Your task to perform on an android device: Go to Reddit.com Image 0: 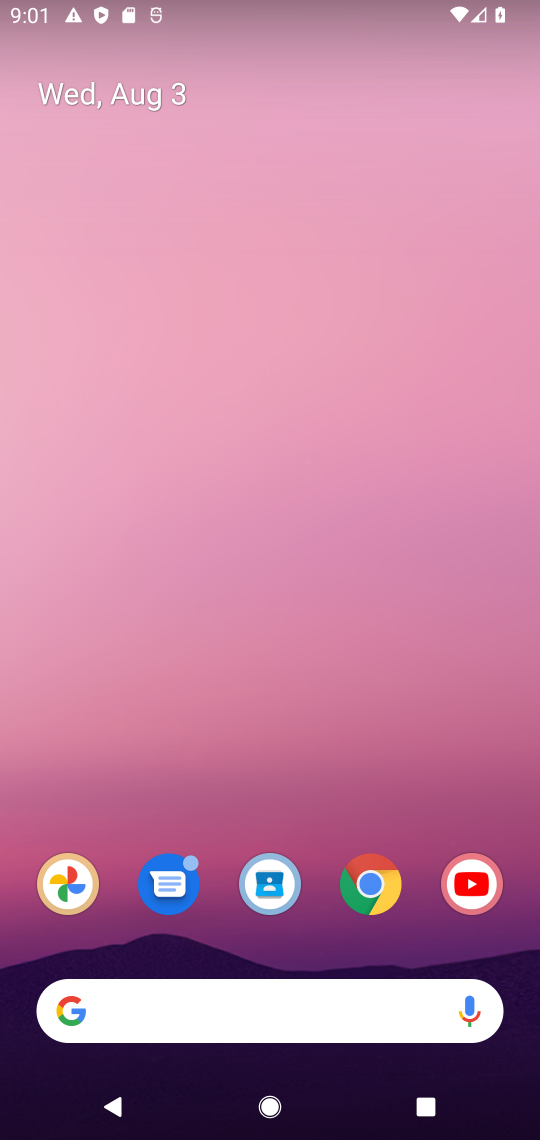
Step 0: press home button
Your task to perform on an android device: Go to Reddit.com Image 1: 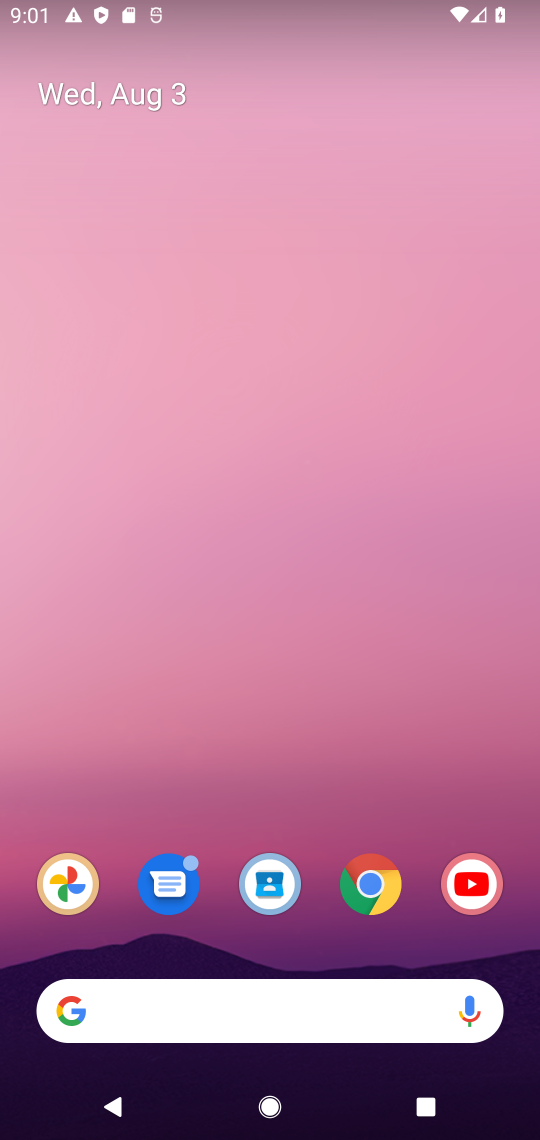
Step 1: drag from (491, 13) to (304, 922)
Your task to perform on an android device: Go to Reddit.com Image 2: 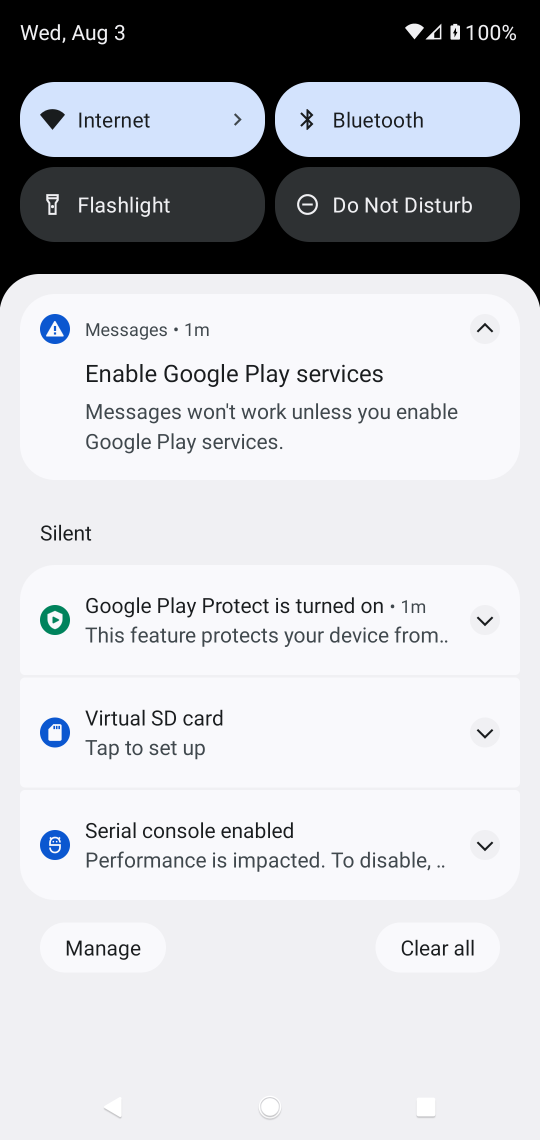
Step 2: drag from (264, 861) to (393, 23)
Your task to perform on an android device: Go to Reddit.com Image 3: 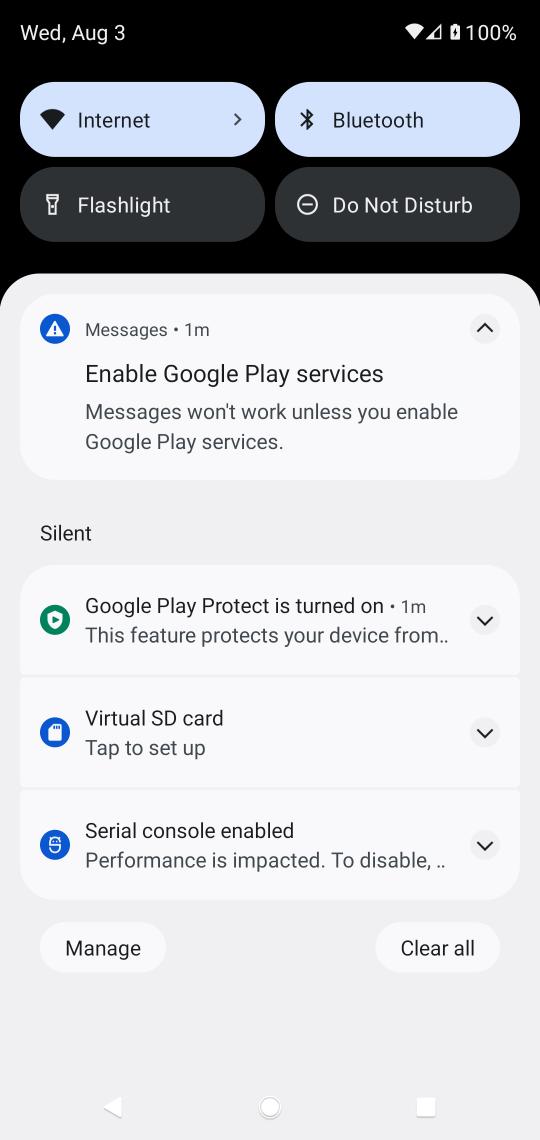
Step 3: press home button
Your task to perform on an android device: Go to Reddit.com Image 4: 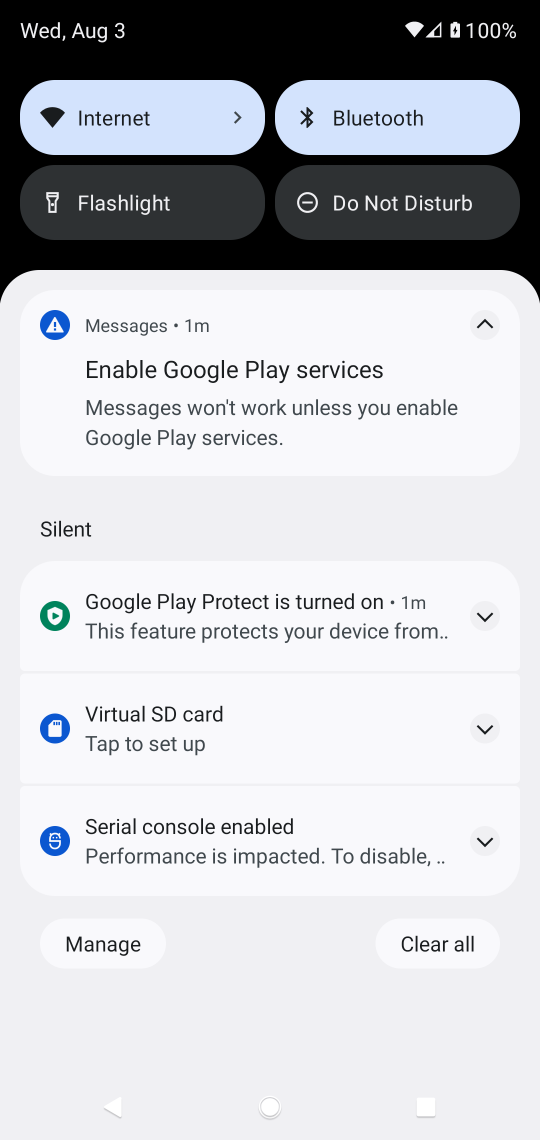
Step 4: press home button
Your task to perform on an android device: Go to Reddit.com Image 5: 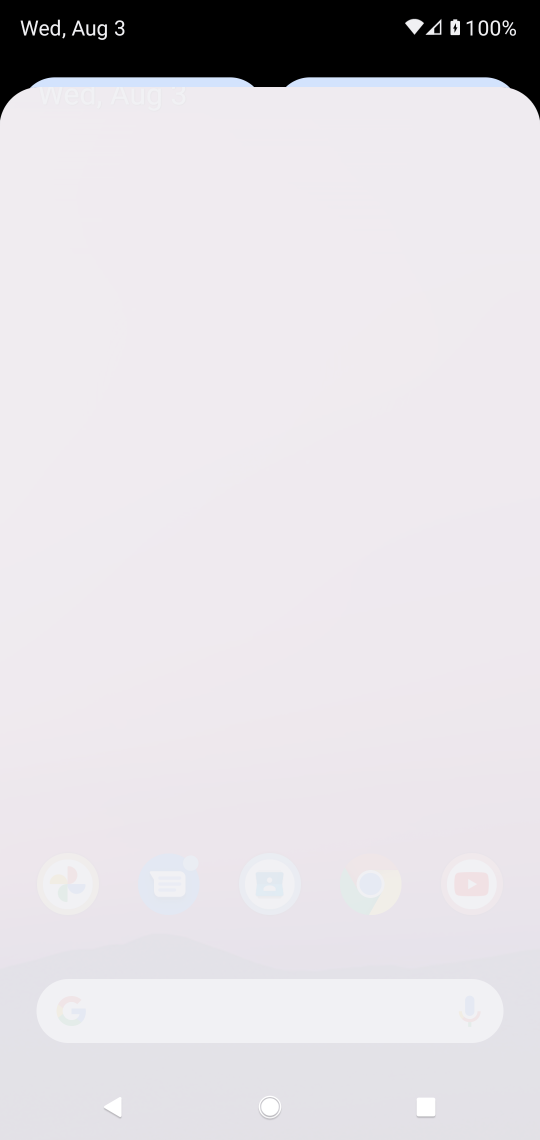
Step 5: press home button
Your task to perform on an android device: Go to Reddit.com Image 6: 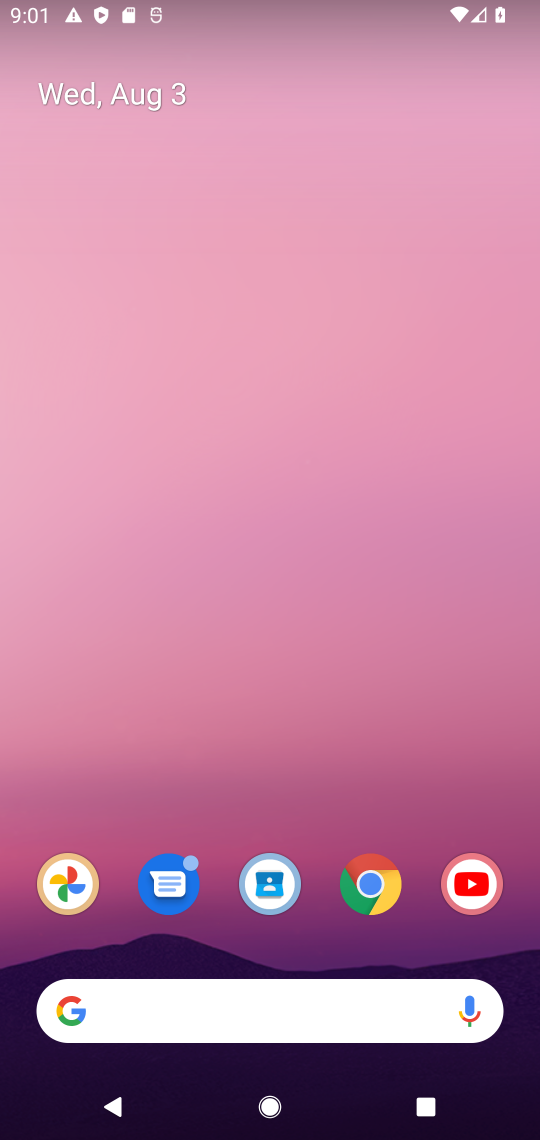
Step 6: drag from (240, 979) to (199, 162)
Your task to perform on an android device: Go to Reddit.com Image 7: 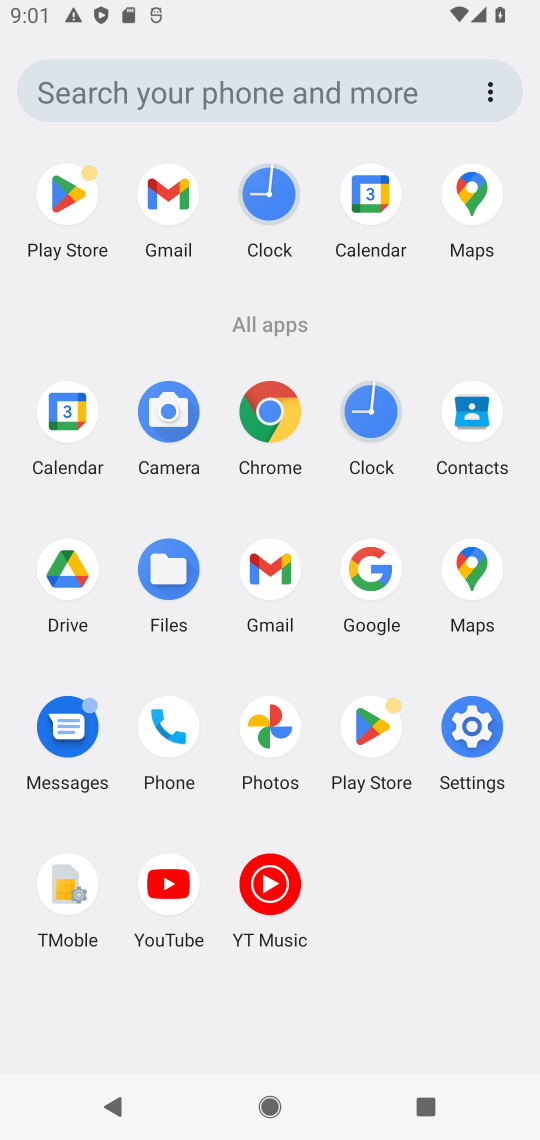
Step 7: click (270, 442)
Your task to perform on an android device: Go to Reddit.com Image 8: 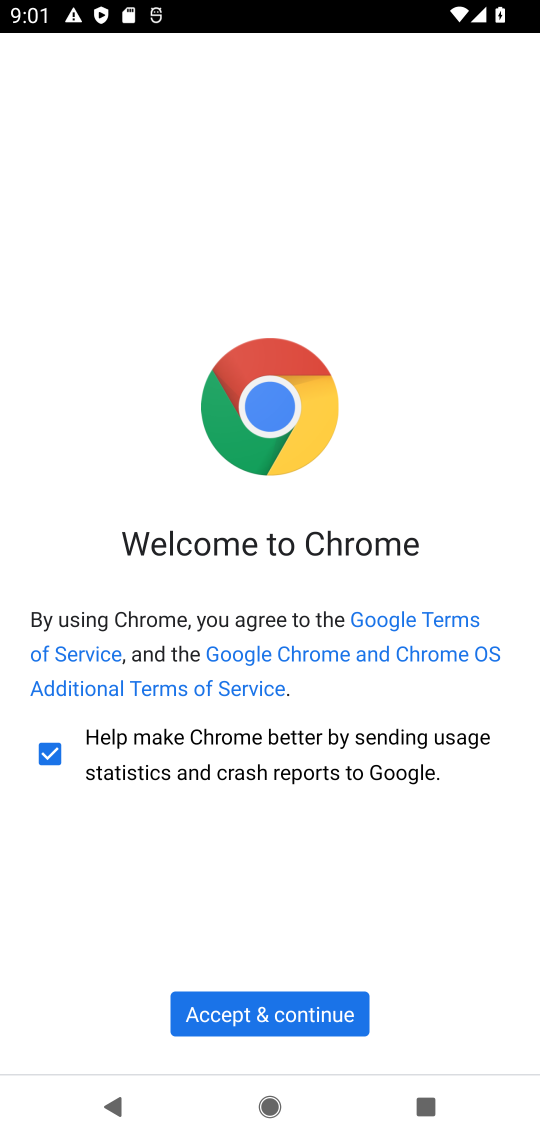
Step 8: click (296, 1002)
Your task to perform on an android device: Go to Reddit.com Image 9: 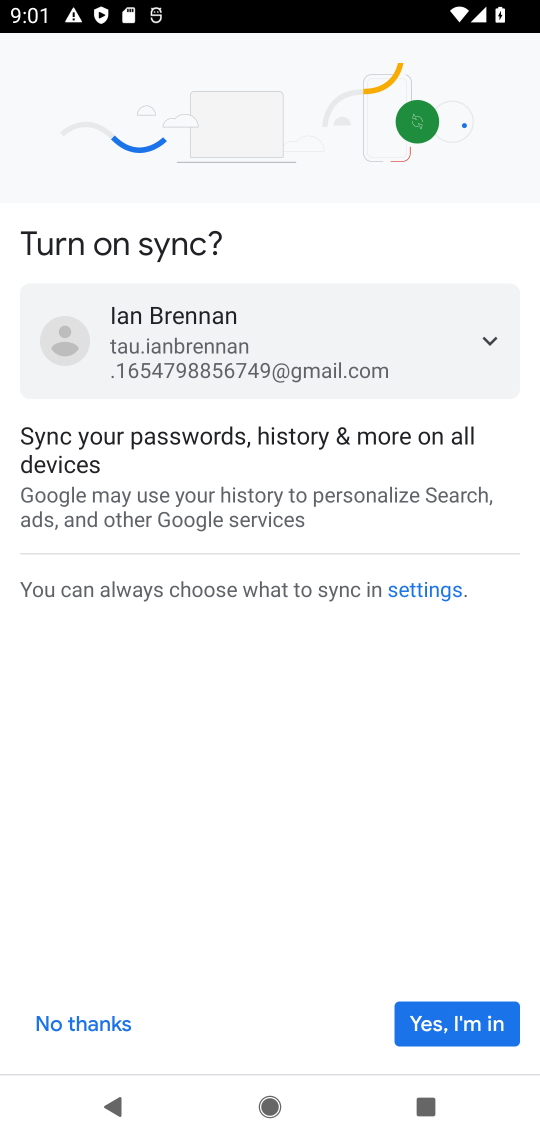
Step 9: click (490, 1031)
Your task to perform on an android device: Go to Reddit.com Image 10: 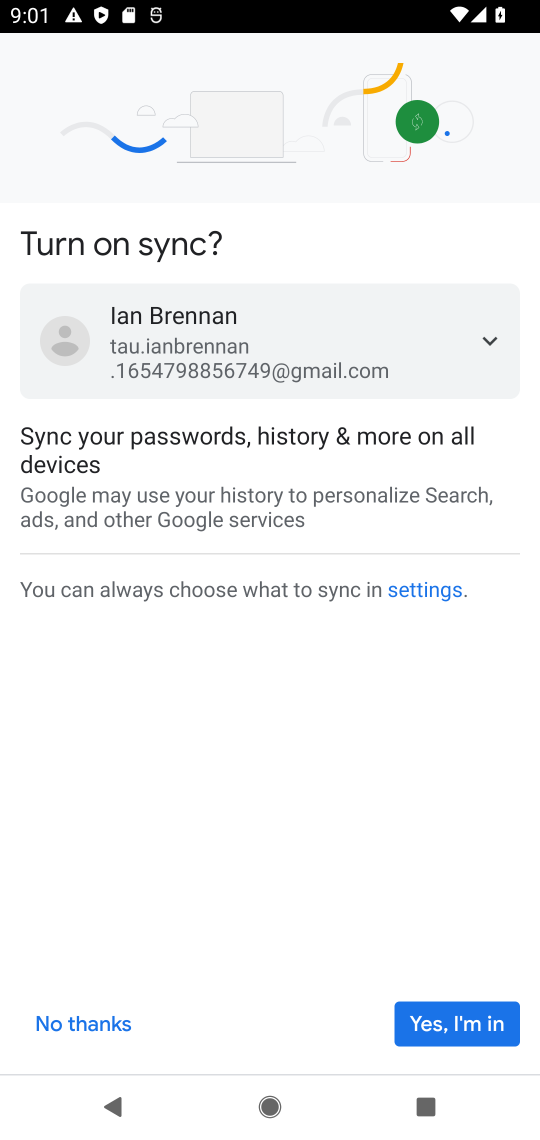
Step 10: click (490, 1031)
Your task to perform on an android device: Go to Reddit.com Image 11: 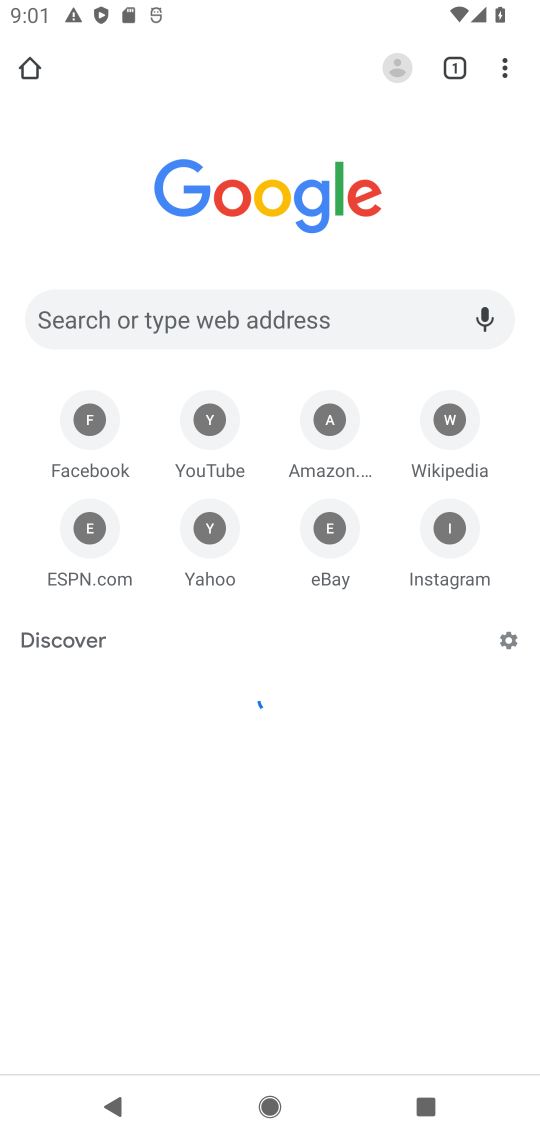
Step 11: click (227, 329)
Your task to perform on an android device: Go to Reddit.com Image 12: 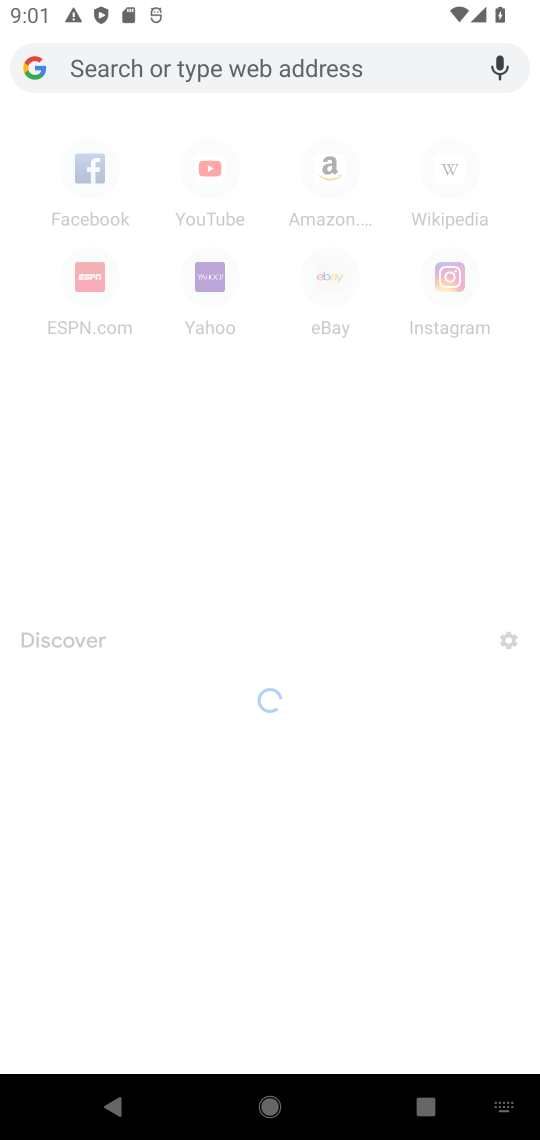
Step 12: type " Reddit.com"
Your task to perform on an android device: Go to Reddit.com Image 13: 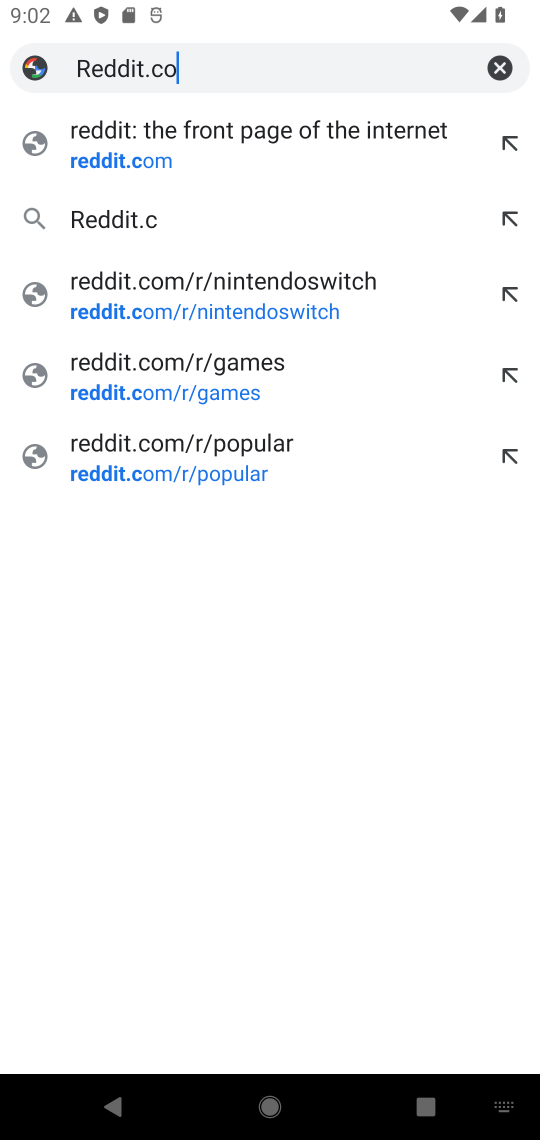
Step 13: type ""
Your task to perform on an android device: Go to Reddit.com Image 14: 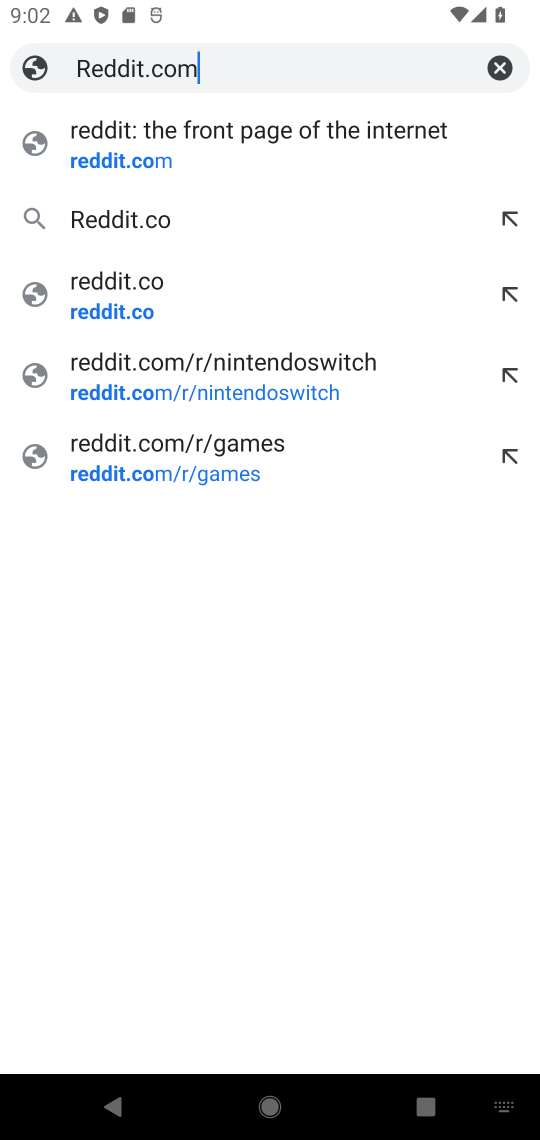
Step 14: click (125, 72)
Your task to perform on an android device: Go to Reddit.com Image 15: 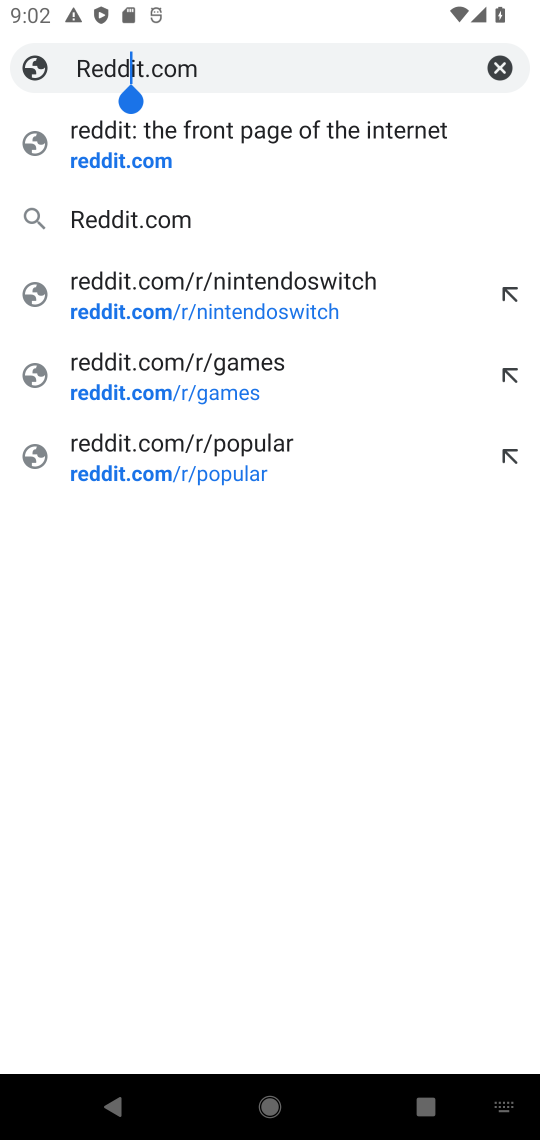
Step 15: click (132, 140)
Your task to perform on an android device: Go to Reddit.com Image 16: 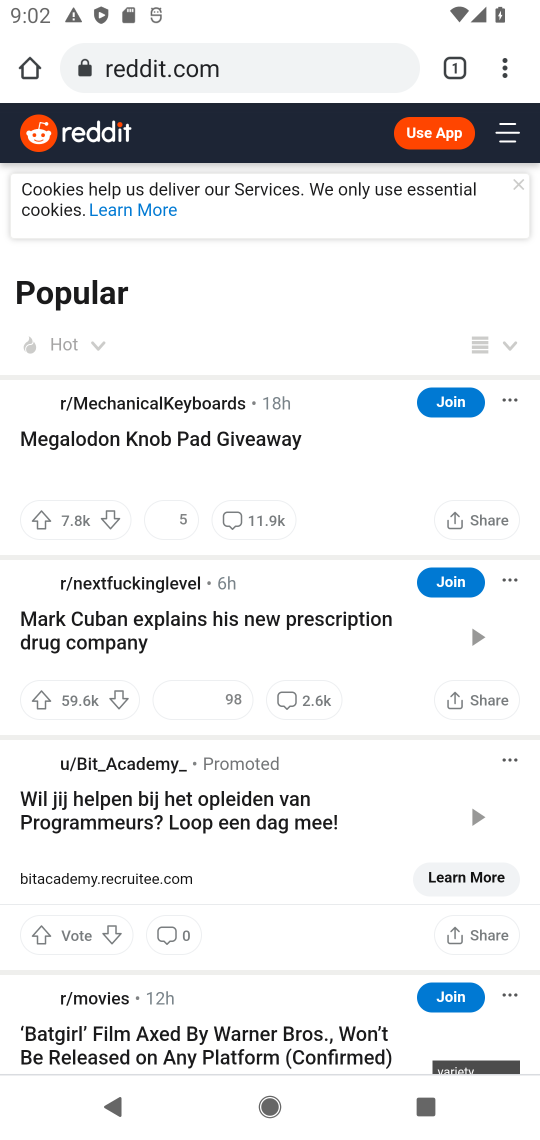
Step 16: task complete